Your task to perform on an android device: turn off priority inbox in the gmail app Image 0: 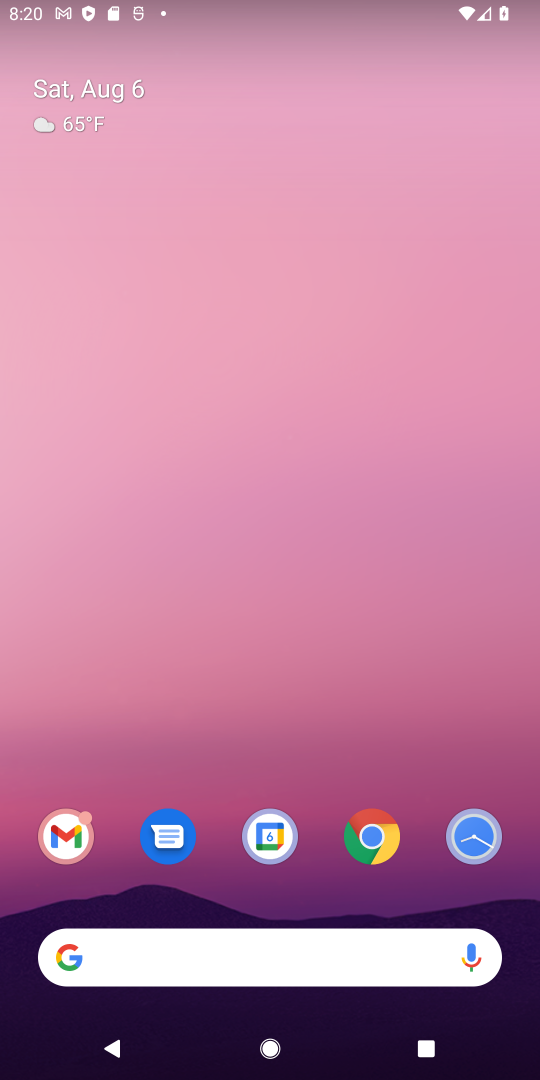
Step 0: drag from (444, 913) to (272, 44)
Your task to perform on an android device: turn off priority inbox in the gmail app Image 1: 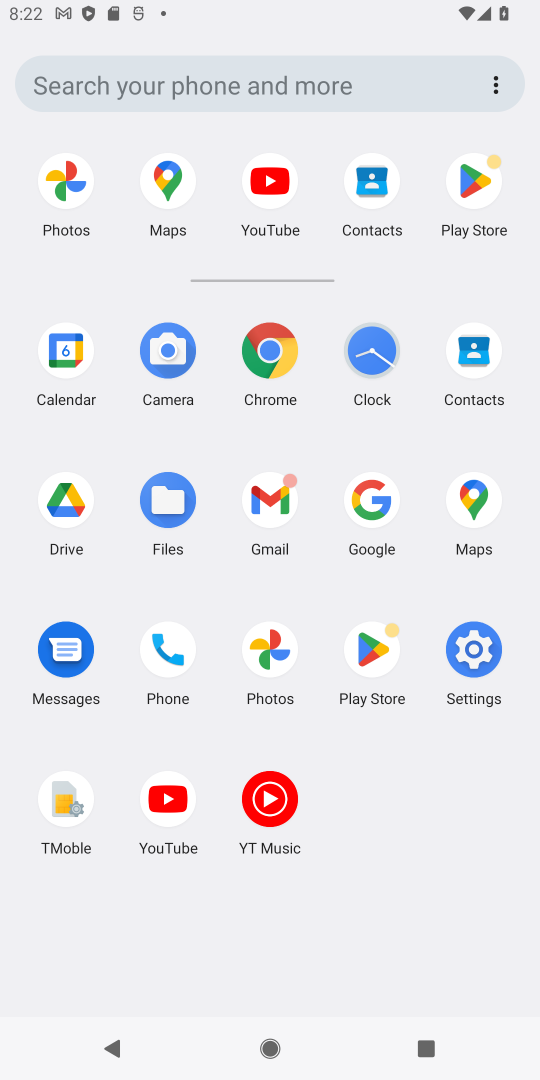
Step 1: click (253, 514)
Your task to perform on an android device: turn off priority inbox in the gmail app Image 2: 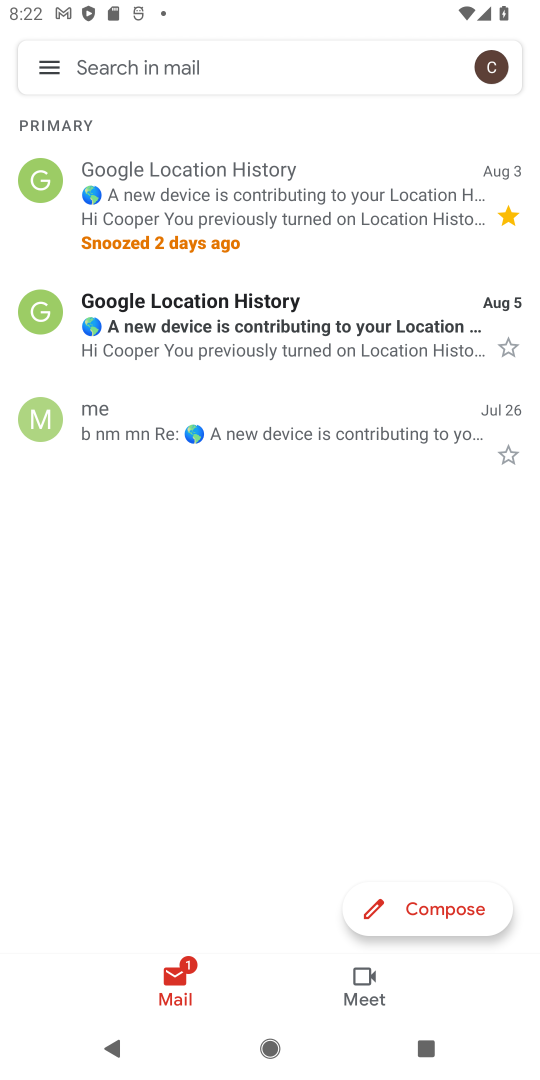
Step 2: click (37, 81)
Your task to perform on an android device: turn off priority inbox in the gmail app Image 3: 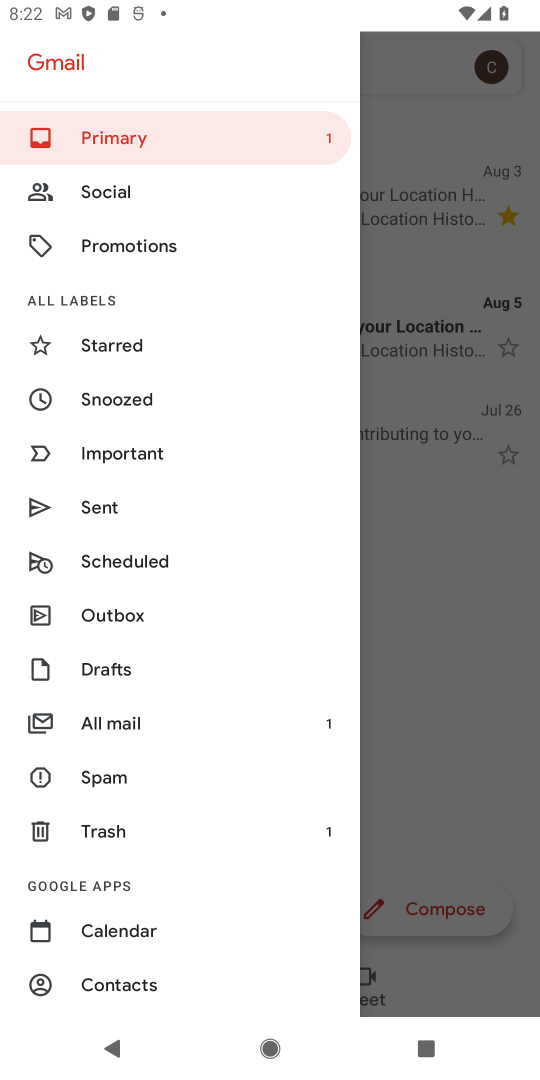
Step 3: drag from (148, 886) to (188, 100)
Your task to perform on an android device: turn off priority inbox in the gmail app Image 4: 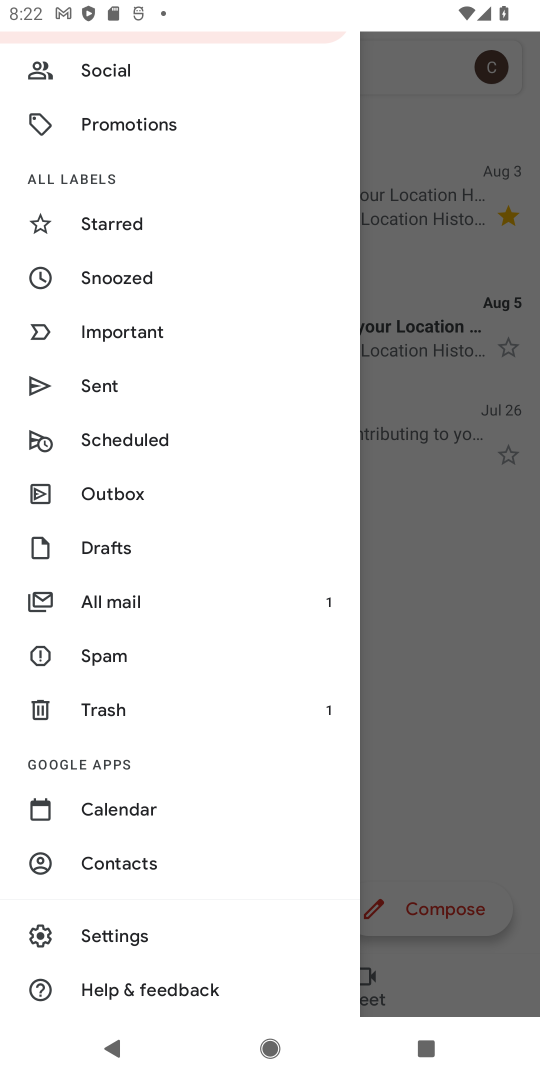
Step 4: click (112, 939)
Your task to perform on an android device: turn off priority inbox in the gmail app Image 5: 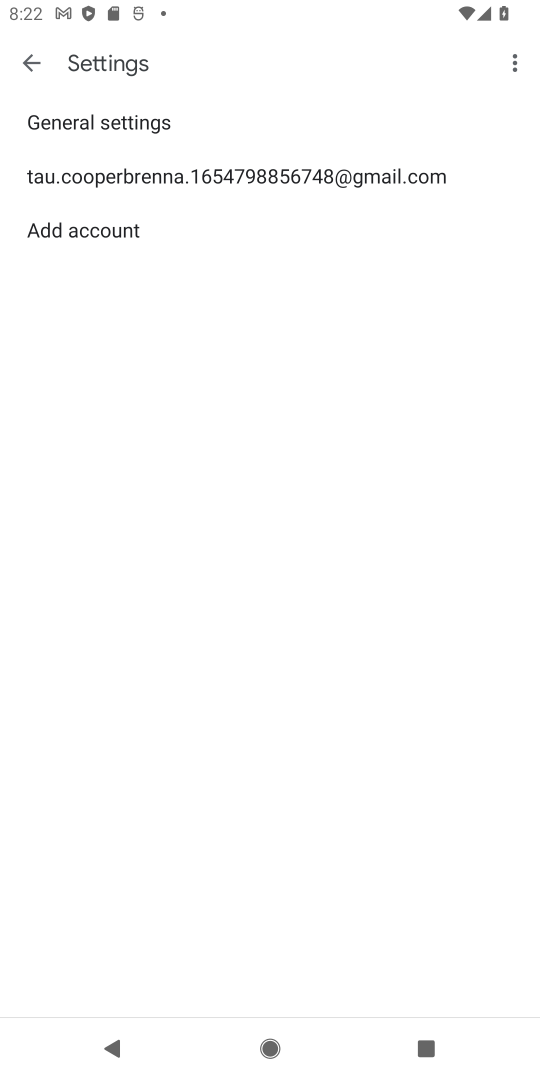
Step 5: click (217, 181)
Your task to perform on an android device: turn off priority inbox in the gmail app Image 6: 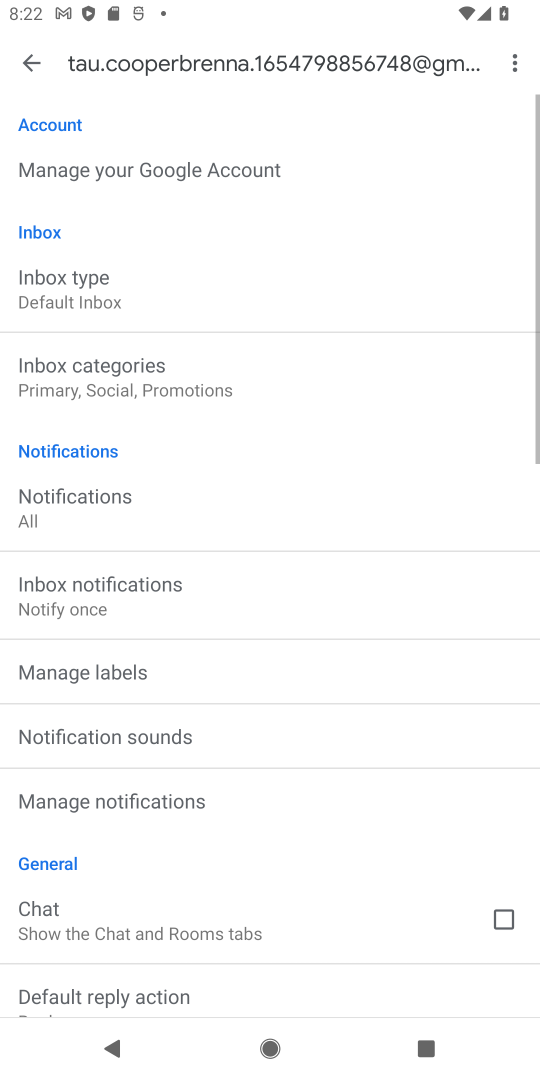
Step 6: click (145, 277)
Your task to perform on an android device: turn off priority inbox in the gmail app Image 7: 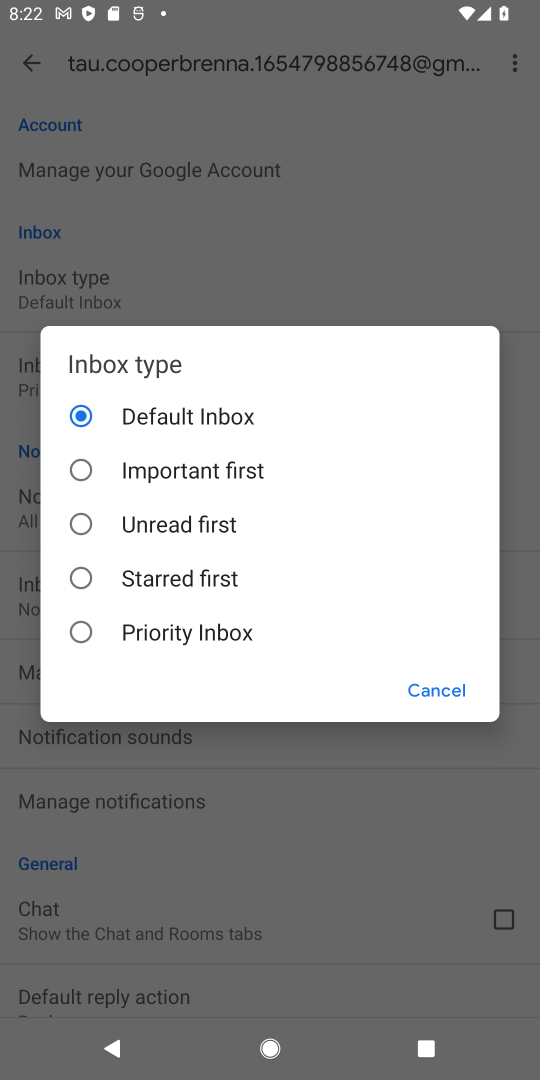
Step 7: task complete